Your task to perform on an android device: manage bookmarks in the chrome app Image 0: 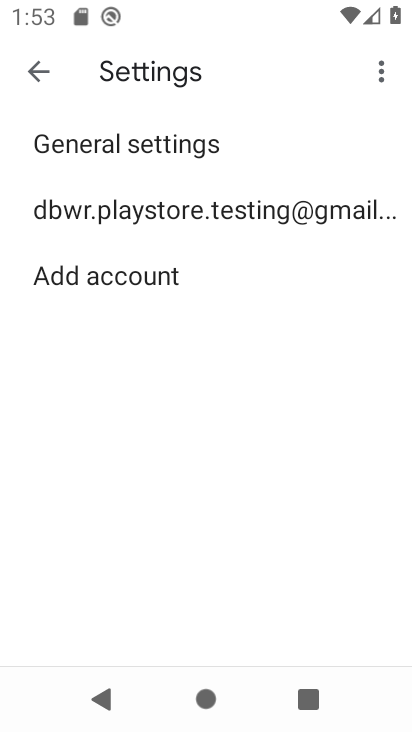
Step 0: press home button
Your task to perform on an android device: manage bookmarks in the chrome app Image 1: 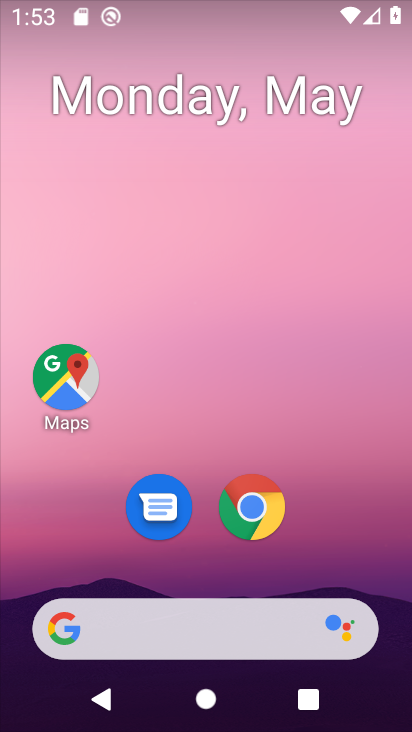
Step 1: click (247, 506)
Your task to perform on an android device: manage bookmarks in the chrome app Image 2: 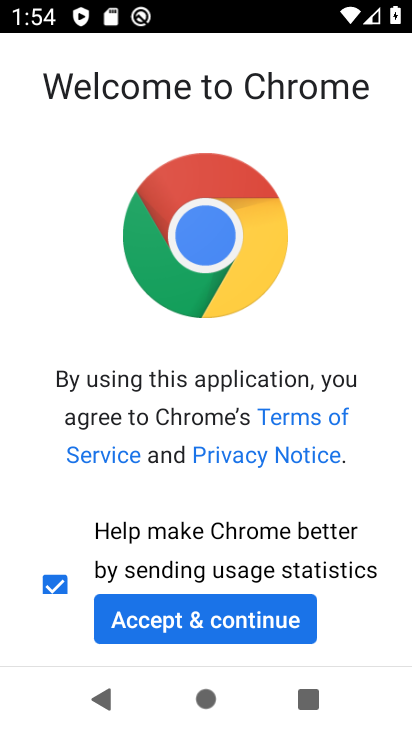
Step 2: click (213, 626)
Your task to perform on an android device: manage bookmarks in the chrome app Image 3: 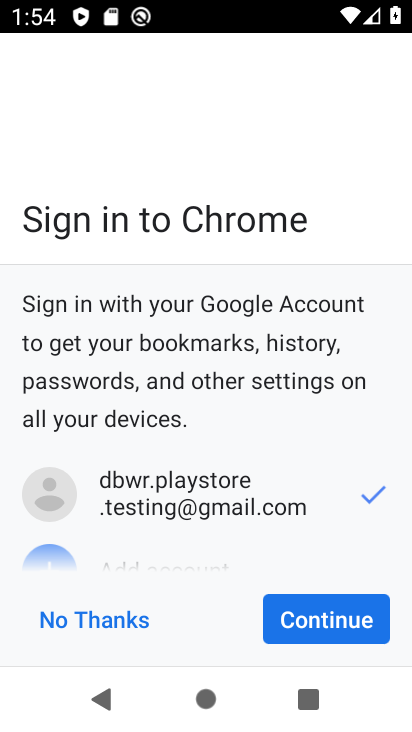
Step 3: click (281, 617)
Your task to perform on an android device: manage bookmarks in the chrome app Image 4: 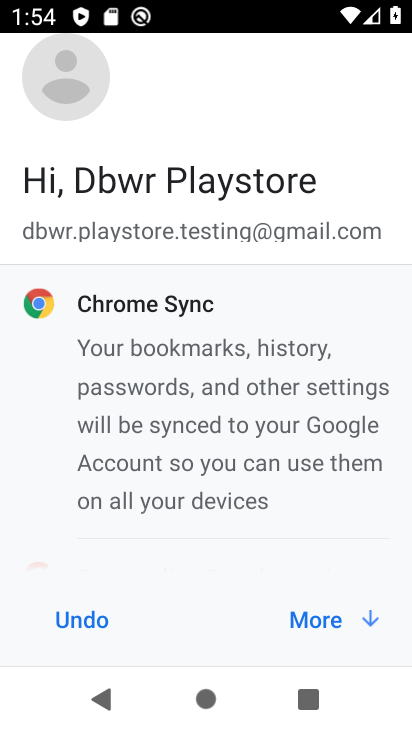
Step 4: click (281, 617)
Your task to perform on an android device: manage bookmarks in the chrome app Image 5: 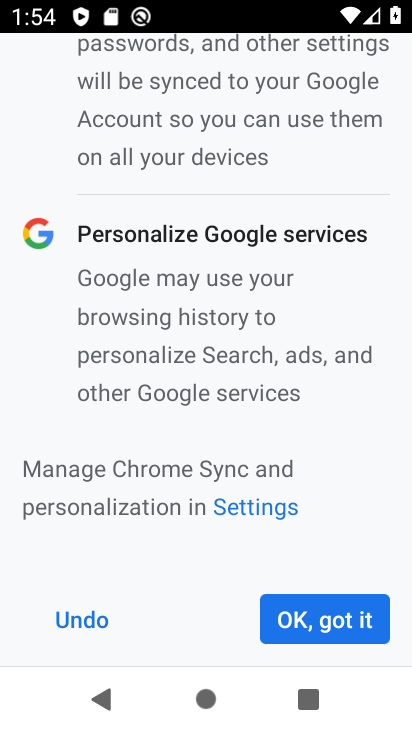
Step 5: click (281, 617)
Your task to perform on an android device: manage bookmarks in the chrome app Image 6: 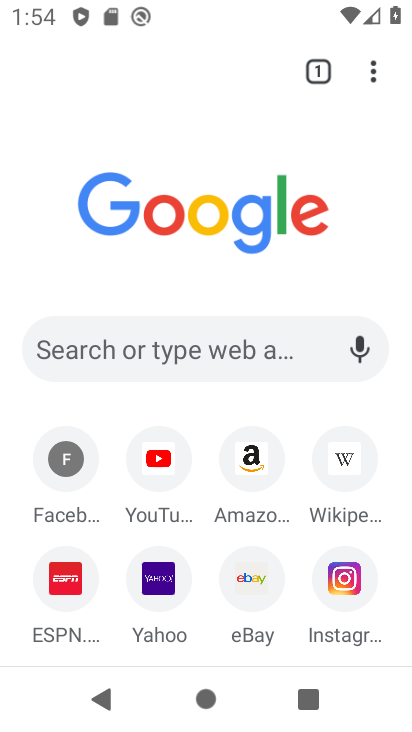
Step 6: click (373, 68)
Your task to perform on an android device: manage bookmarks in the chrome app Image 7: 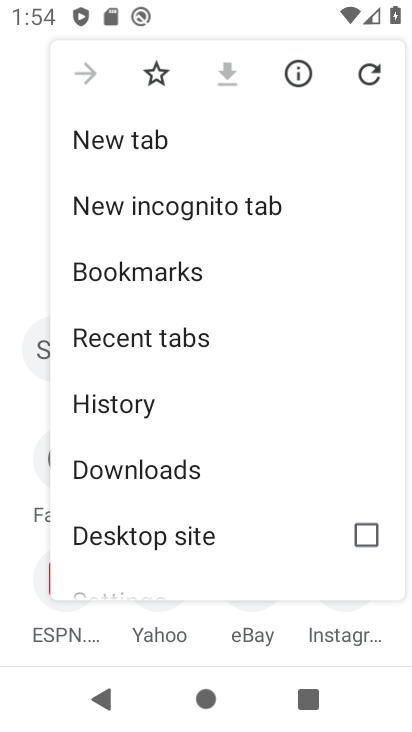
Step 7: click (204, 281)
Your task to perform on an android device: manage bookmarks in the chrome app Image 8: 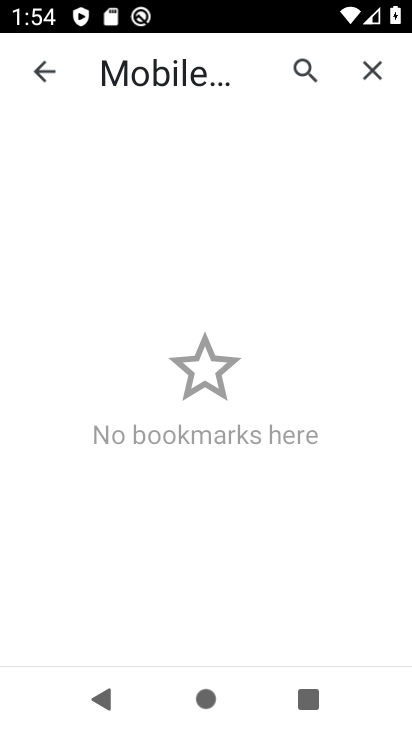
Step 8: task complete